Your task to perform on an android device: manage bookmarks in the chrome app Image 0: 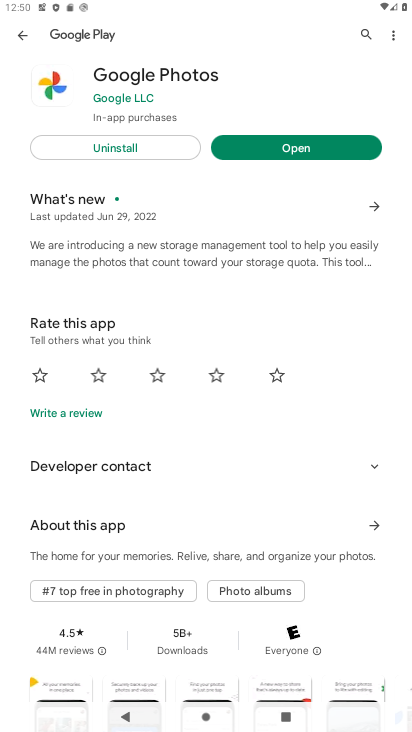
Step 0: press home button
Your task to perform on an android device: manage bookmarks in the chrome app Image 1: 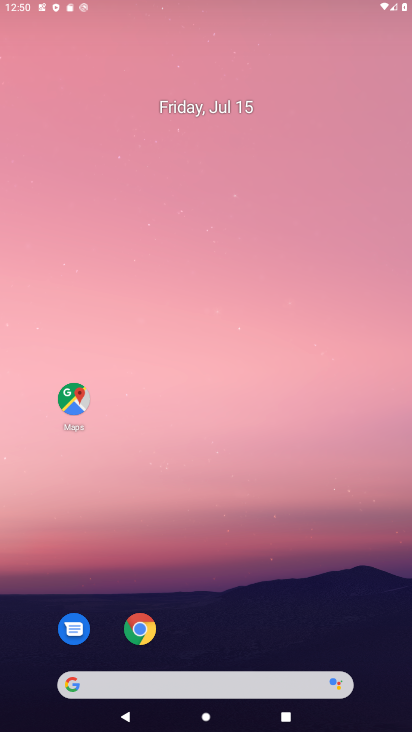
Step 1: drag from (290, 481) to (245, 46)
Your task to perform on an android device: manage bookmarks in the chrome app Image 2: 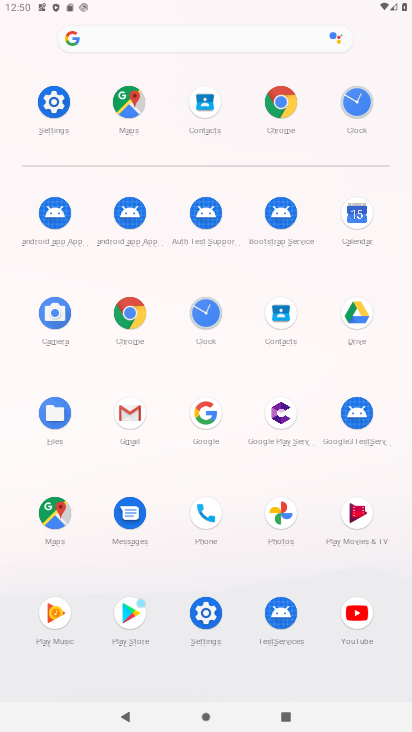
Step 2: click (130, 317)
Your task to perform on an android device: manage bookmarks in the chrome app Image 3: 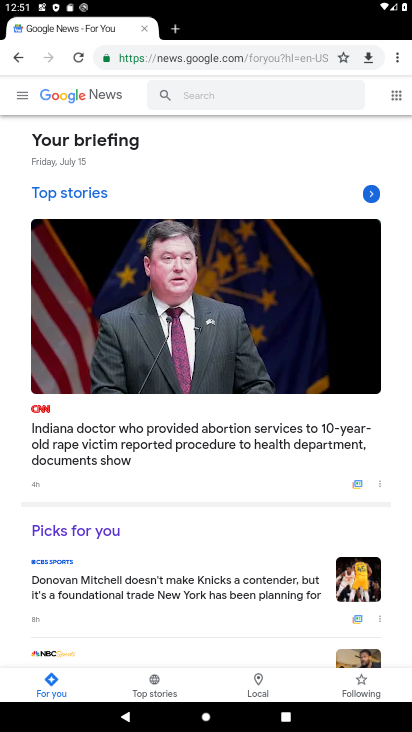
Step 3: drag from (405, 57) to (287, 159)
Your task to perform on an android device: manage bookmarks in the chrome app Image 4: 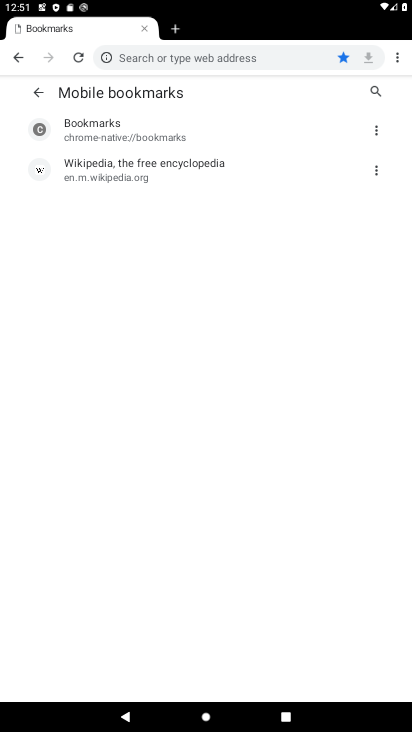
Step 4: click (377, 170)
Your task to perform on an android device: manage bookmarks in the chrome app Image 5: 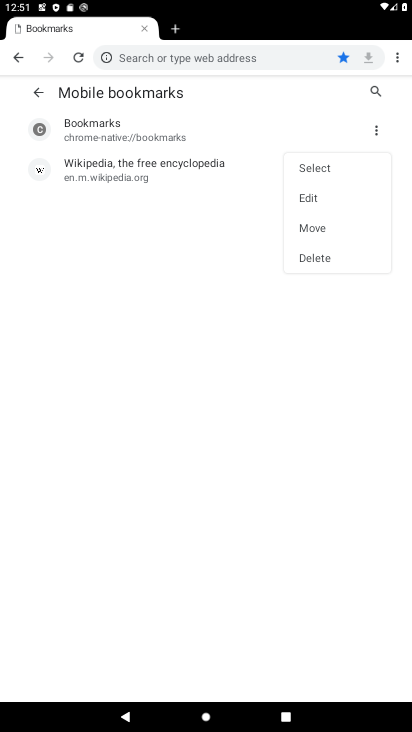
Step 5: click (309, 257)
Your task to perform on an android device: manage bookmarks in the chrome app Image 6: 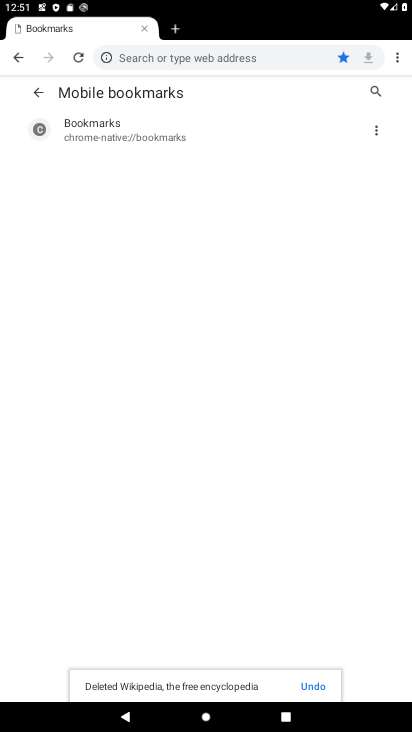
Step 6: task complete